Your task to perform on an android device: see creations saved in the google photos Image 0: 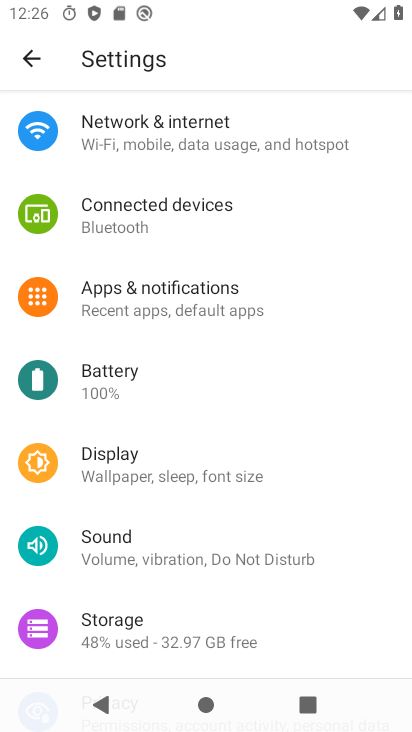
Step 0: press home button
Your task to perform on an android device: see creations saved in the google photos Image 1: 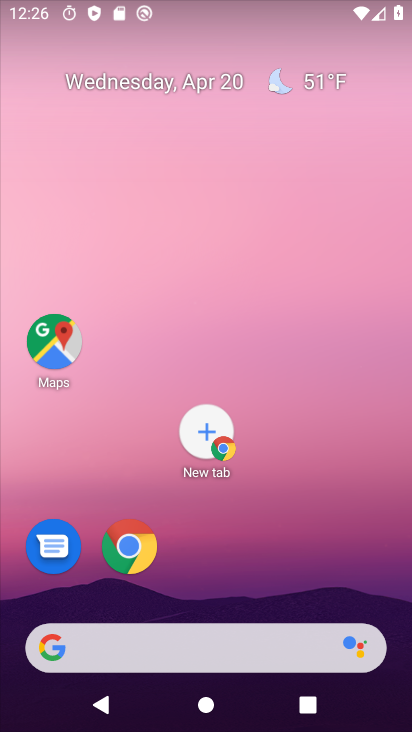
Step 1: drag from (204, 603) to (345, 0)
Your task to perform on an android device: see creations saved in the google photos Image 2: 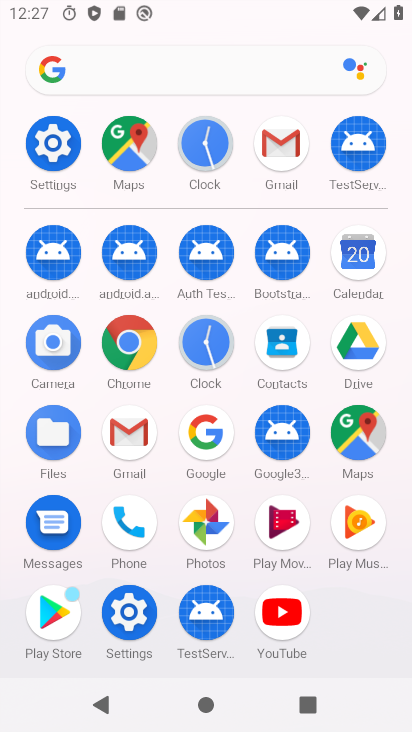
Step 2: click (221, 526)
Your task to perform on an android device: see creations saved in the google photos Image 3: 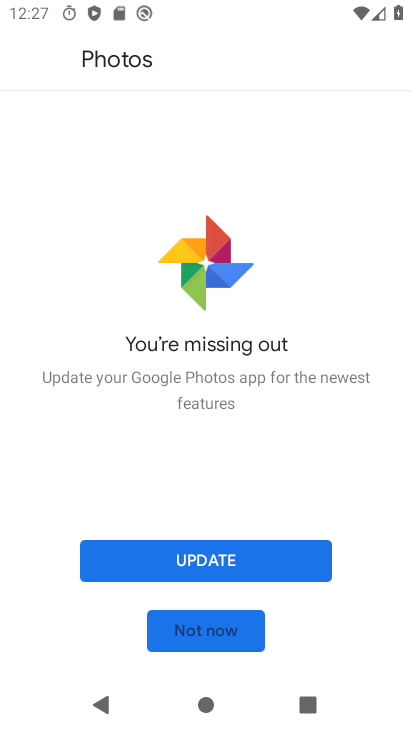
Step 3: click (197, 638)
Your task to perform on an android device: see creations saved in the google photos Image 4: 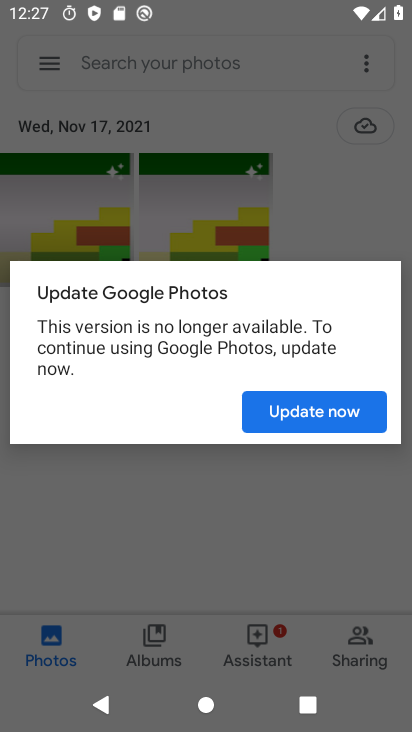
Step 4: click (317, 409)
Your task to perform on an android device: see creations saved in the google photos Image 5: 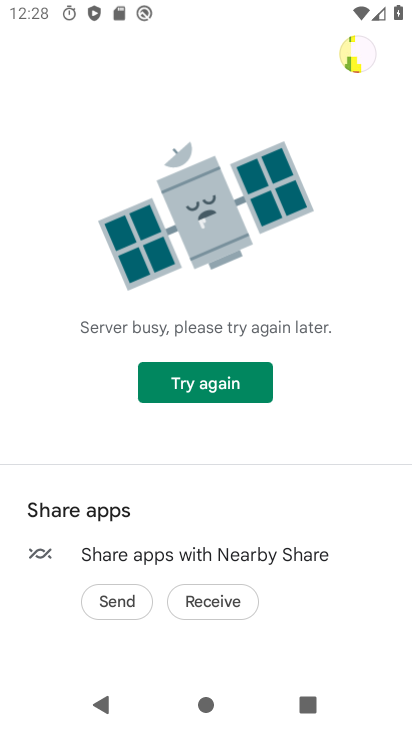
Step 5: task complete